Your task to perform on an android device: refresh tabs in the chrome app Image 0: 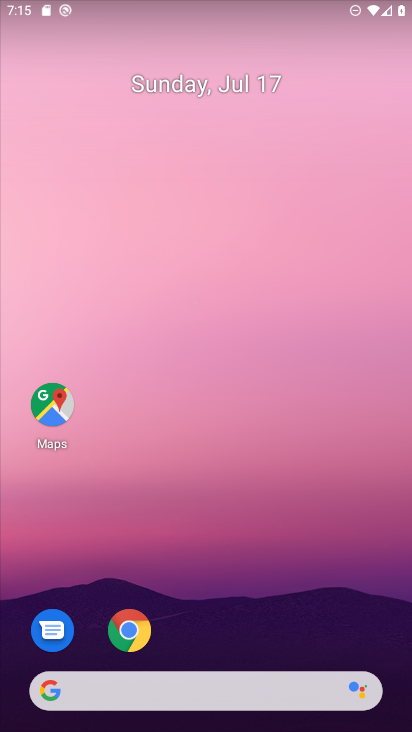
Step 0: drag from (400, 658) to (285, 43)
Your task to perform on an android device: refresh tabs in the chrome app Image 1: 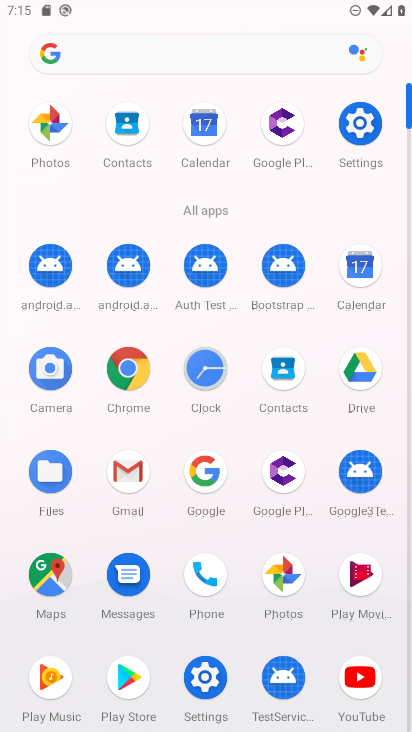
Step 1: click (127, 384)
Your task to perform on an android device: refresh tabs in the chrome app Image 2: 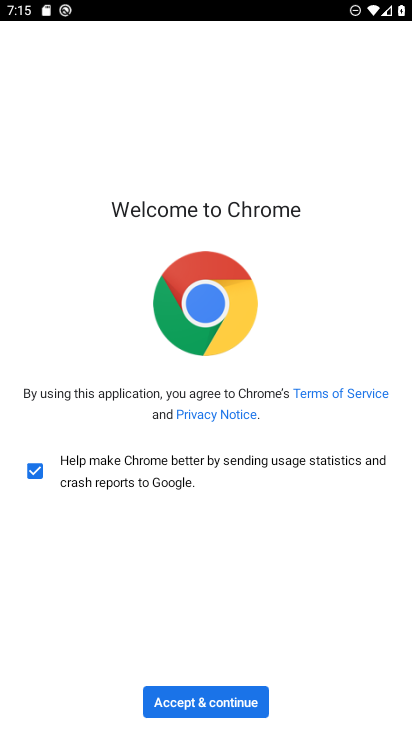
Step 2: click (221, 701)
Your task to perform on an android device: refresh tabs in the chrome app Image 3: 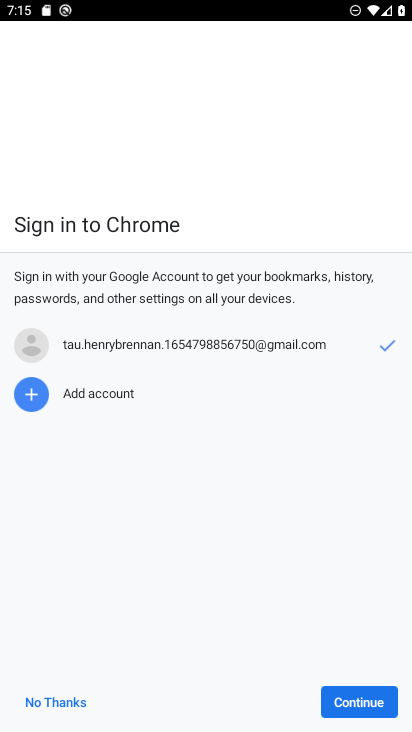
Step 3: click (344, 712)
Your task to perform on an android device: refresh tabs in the chrome app Image 4: 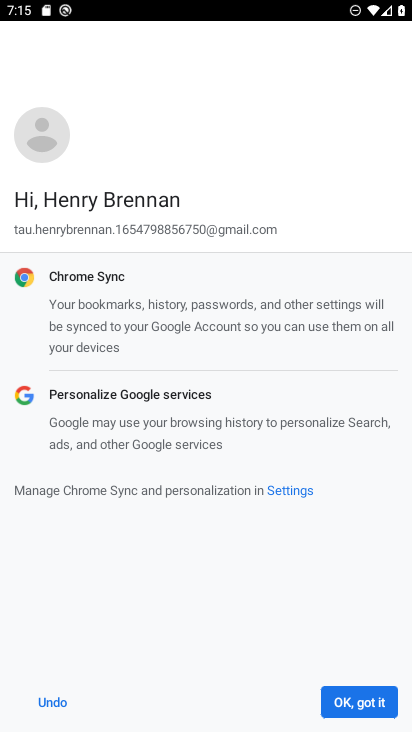
Step 4: click (348, 707)
Your task to perform on an android device: refresh tabs in the chrome app Image 5: 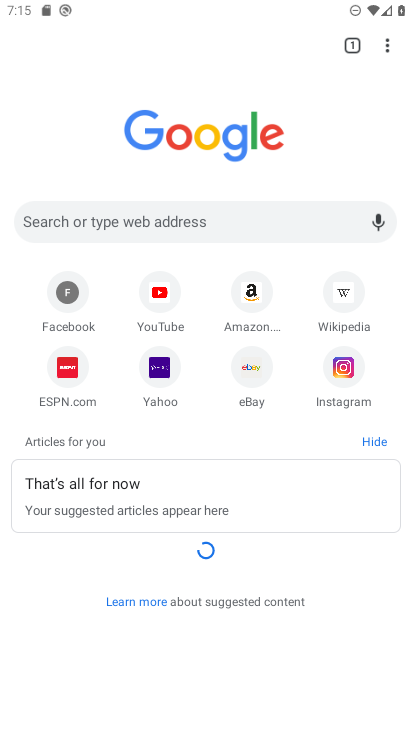
Step 5: click (388, 45)
Your task to perform on an android device: refresh tabs in the chrome app Image 6: 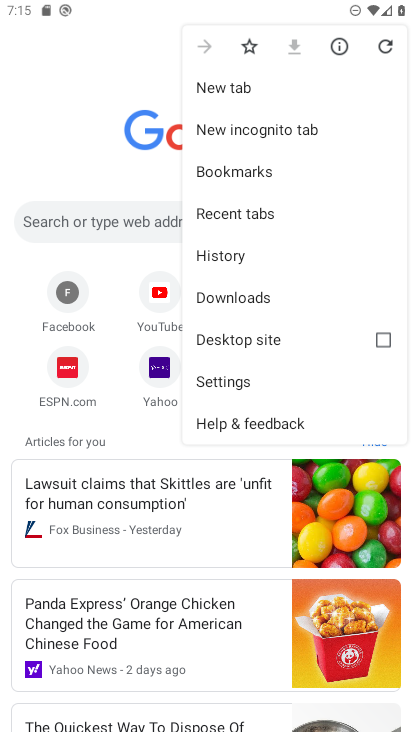
Step 6: click (387, 48)
Your task to perform on an android device: refresh tabs in the chrome app Image 7: 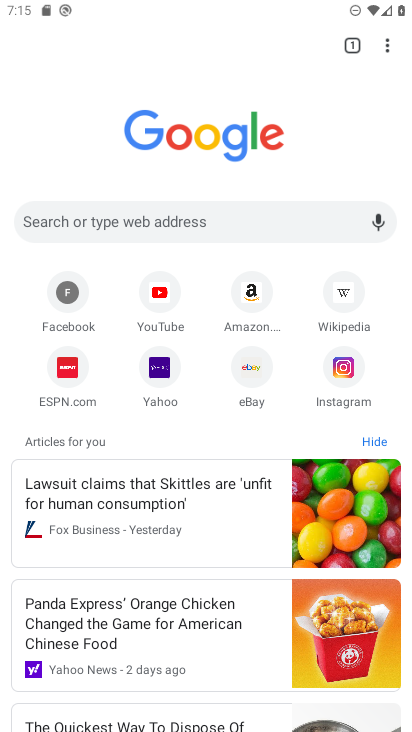
Step 7: task complete